Your task to perform on an android device: Open internet settings Image 0: 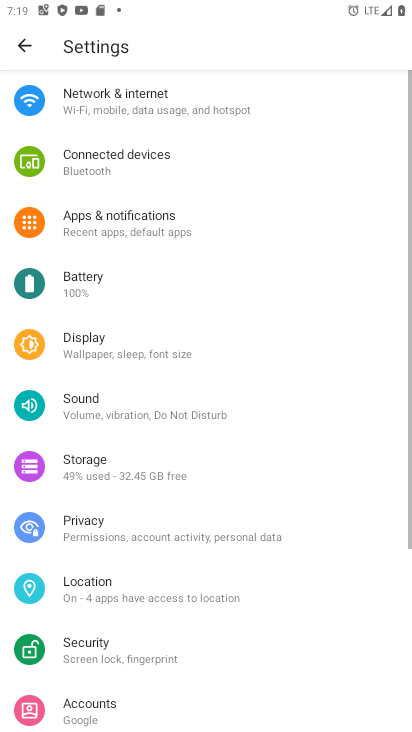
Step 0: click (104, 96)
Your task to perform on an android device: Open internet settings Image 1: 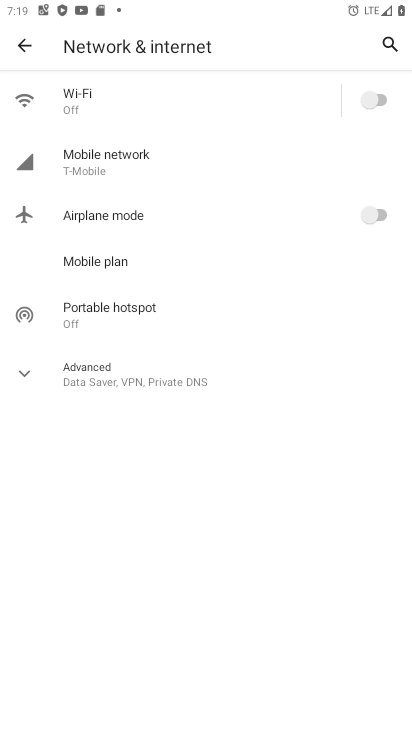
Step 1: click (103, 152)
Your task to perform on an android device: Open internet settings Image 2: 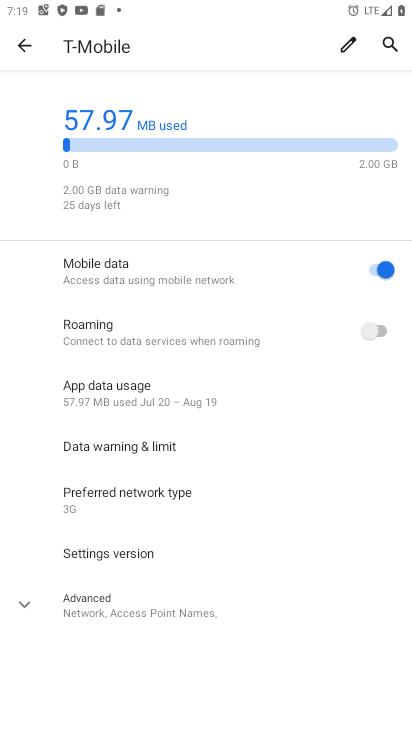
Step 2: task complete